Your task to perform on an android device: change your default location settings in chrome Image 0: 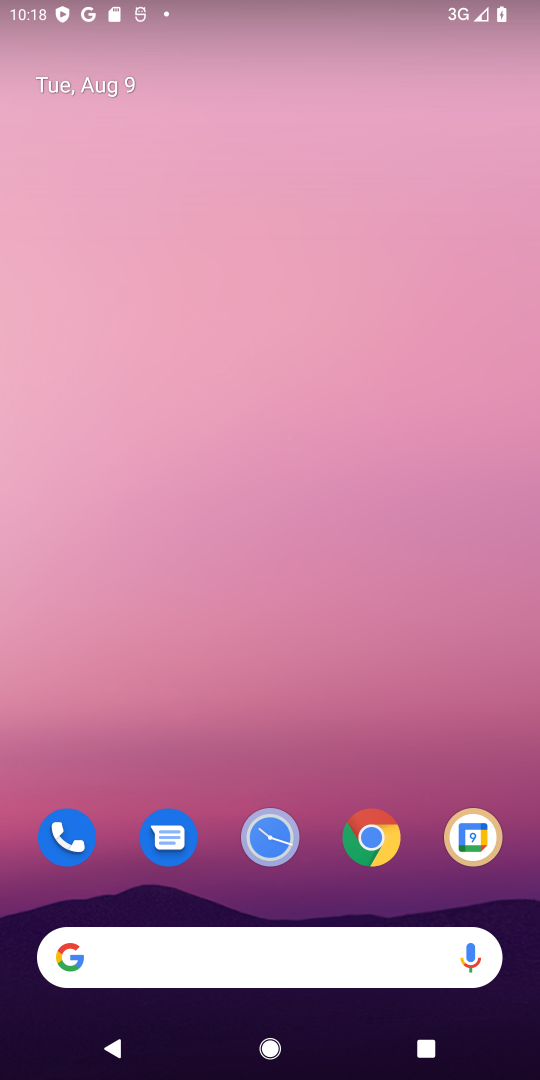
Step 0: click (370, 834)
Your task to perform on an android device: change your default location settings in chrome Image 1: 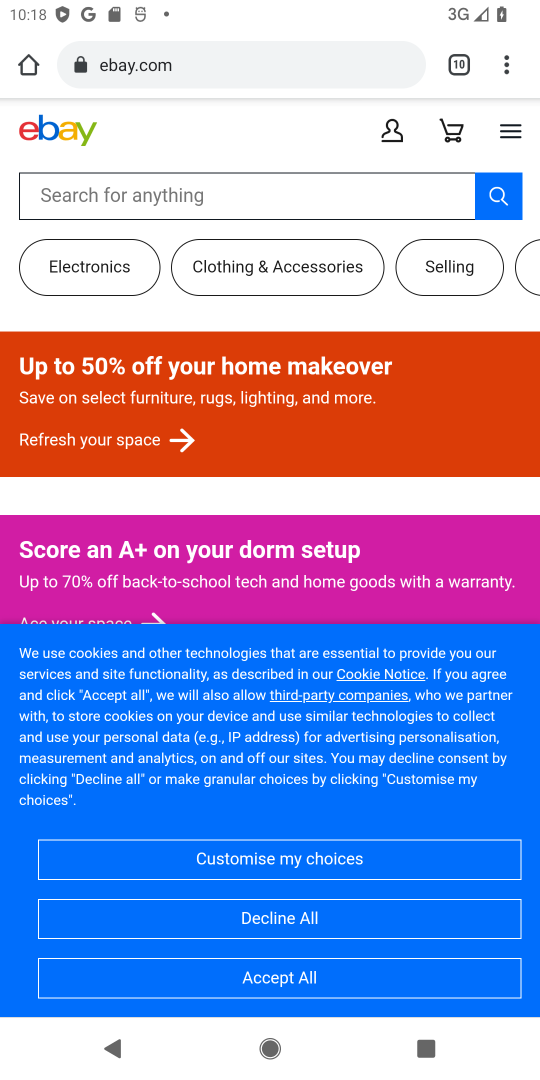
Step 1: click (509, 69)
Your task to perform on an android device: change your default location settings in chrome Image 2: 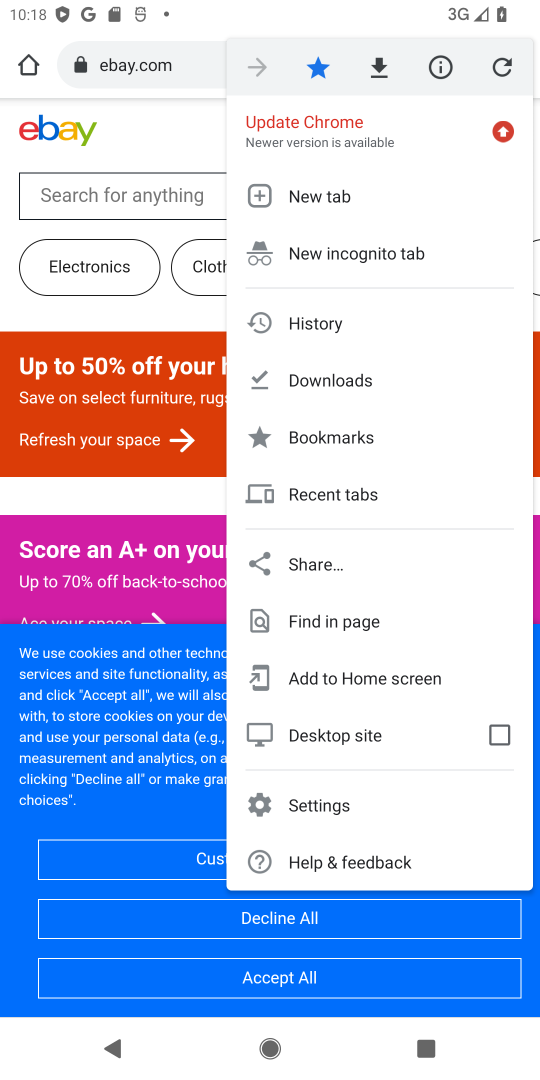
Step 2: click (323, 804)
Your task to perform on an android device: change your default location settings in chrome Image 3: 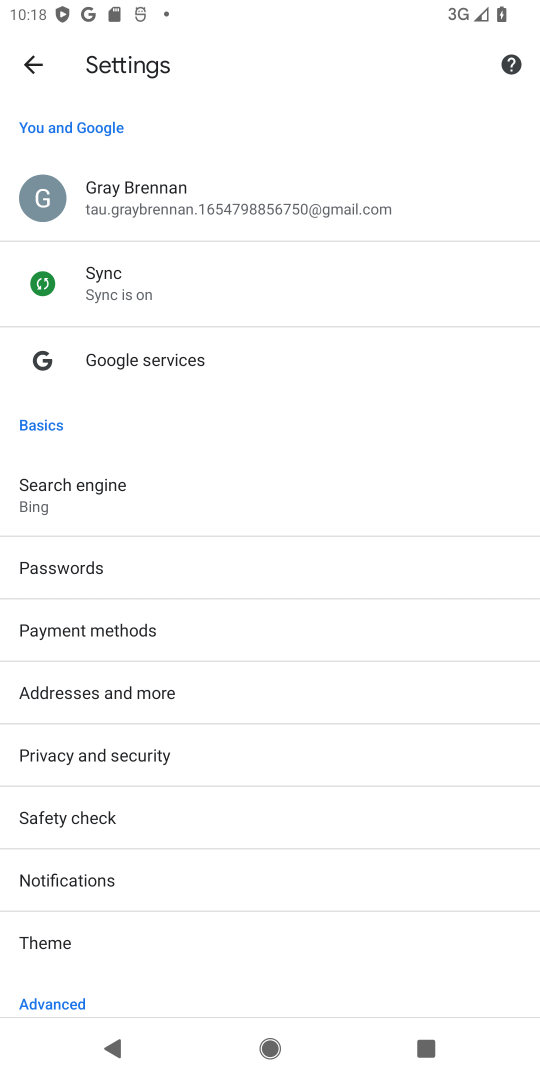
Step 3: drag from (101, 957) to (99, 481)
Your task to perform on an android device: change your default location settings in chrome Image 4: 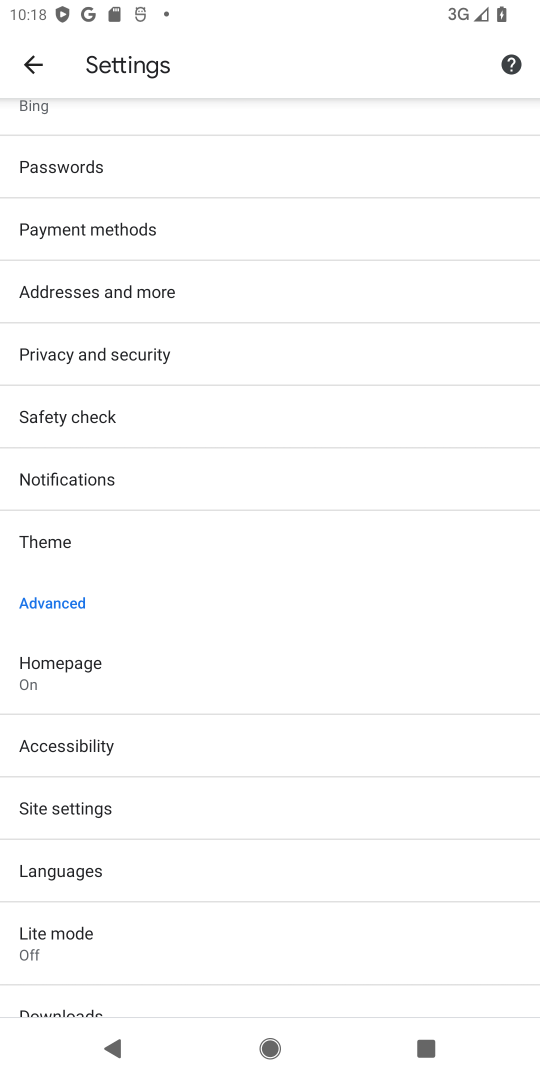
Step 4: click (79, 806)
Your task to perform on an android device: change your default location settings in chrome Image 5: 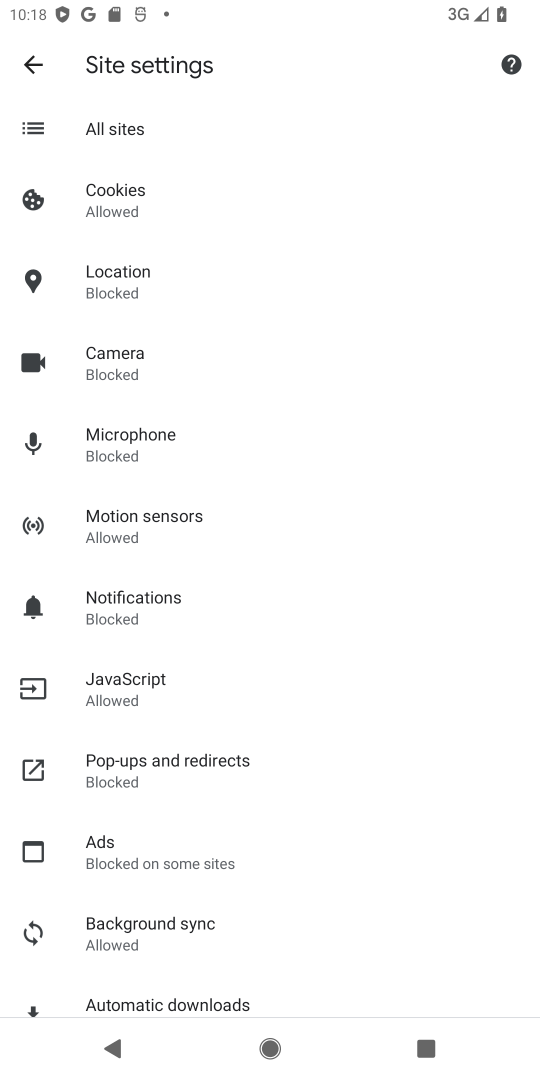
Step 5: click (131, 273)
Your task to perform on an android device: change your default location settings in chrome Image 6: 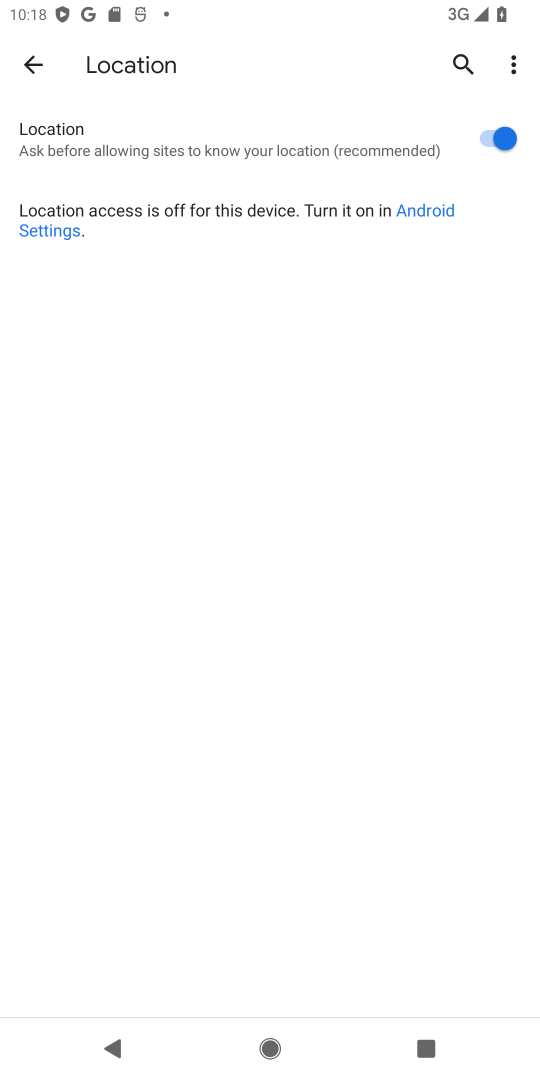
Step 6: click (497, 135)
Your task to perform on an android device: change your default location settings in chrome Image 7: 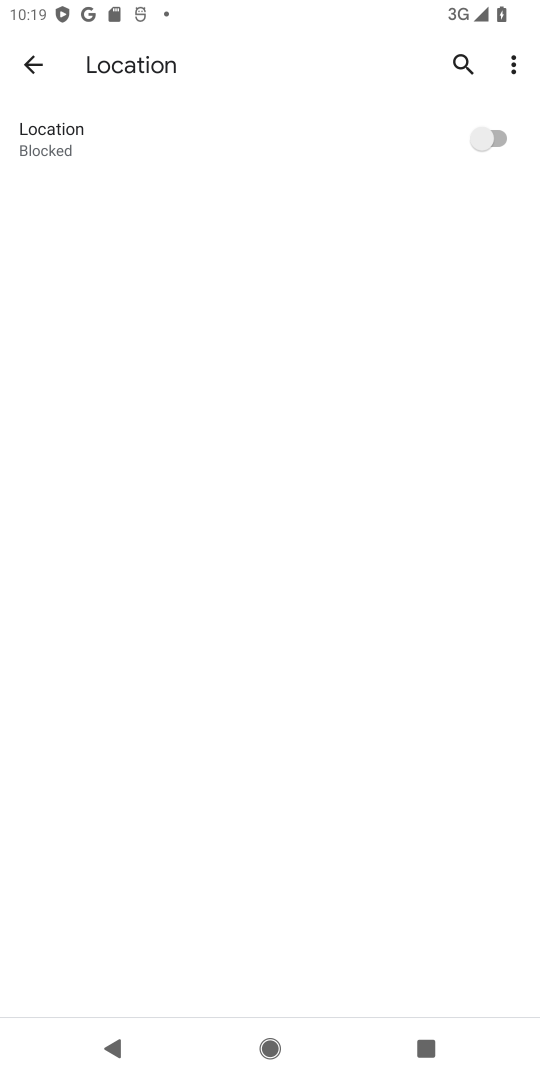
Step 7: task complete